Your task to perform on an android device: turn off improve location accuracy Image 0: 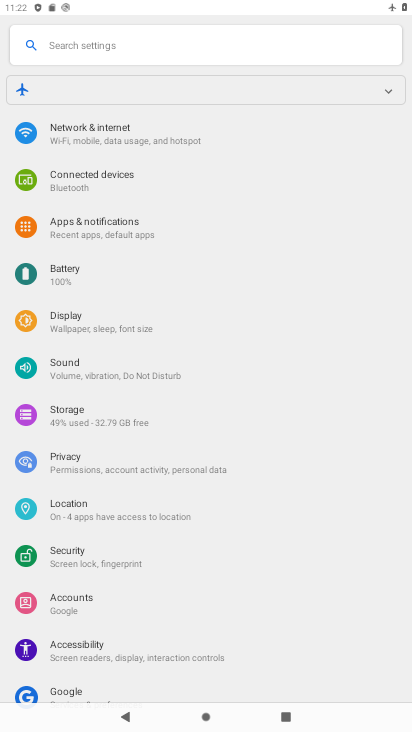
Step 0: press home button
Your task to perform on an android device: turn off improve location accuracy Image 1: 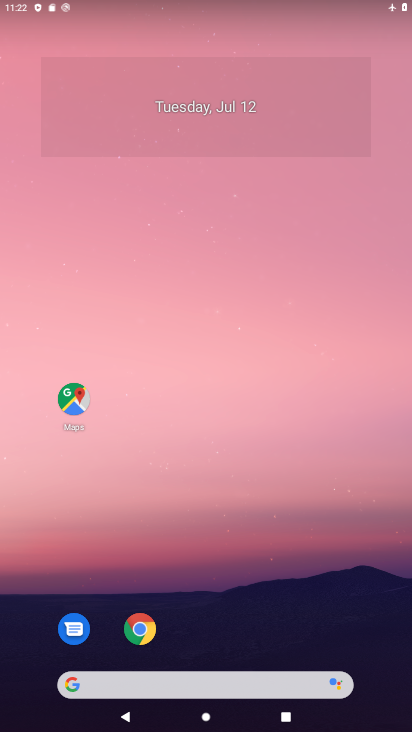
Step 1: drag from (193, 657) to (283, 27)
Your task to perform on an android device: turn off improve location accuracy Image 2: 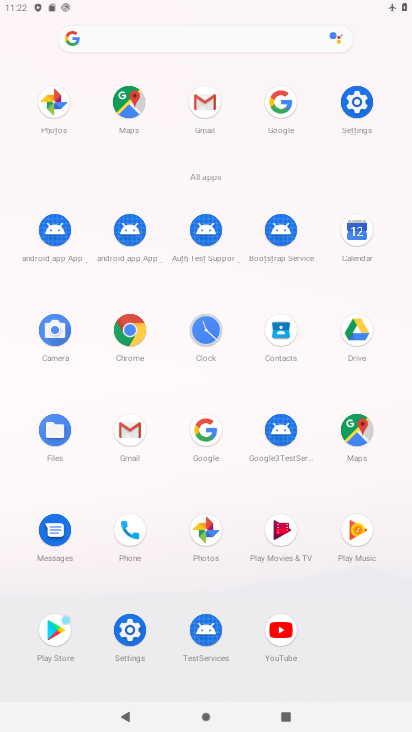
Step 2: click (359, 102)
Your task to perform on an android device: turn off improve location accuracy Image 3: 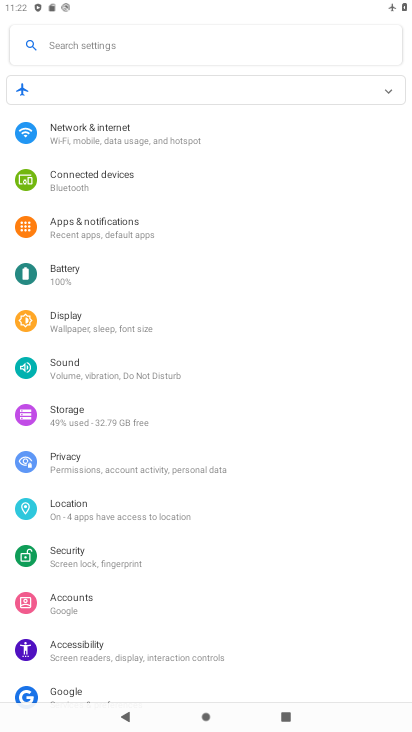
Step 3: drag from (111, 594) to (89, 362)
Your task to perform on an android device: turn off improve location accuracy Image 4: 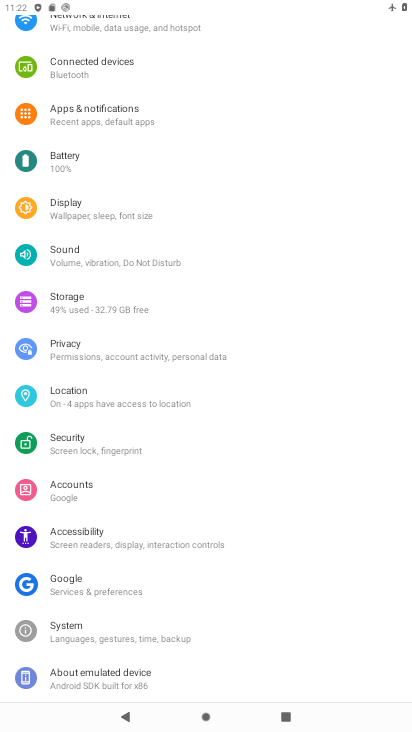
Step 4: click (81, 385)
Your task to perform on an android device: turn off improve location accuracy Image 5: 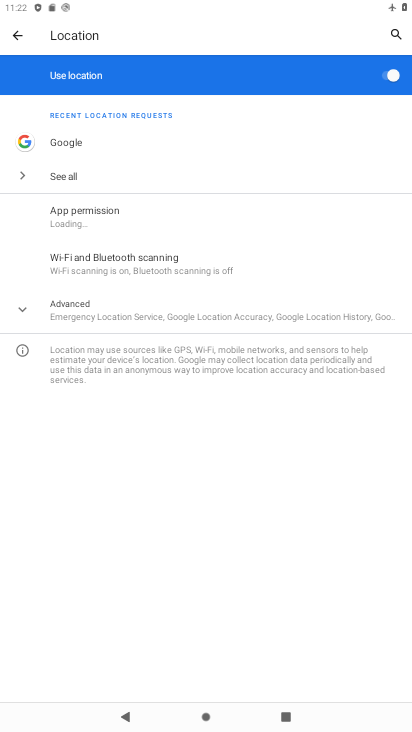
Step 5: click (93, 312)
Your task to perform on an android device: turn off improve location accuracy Image 6: 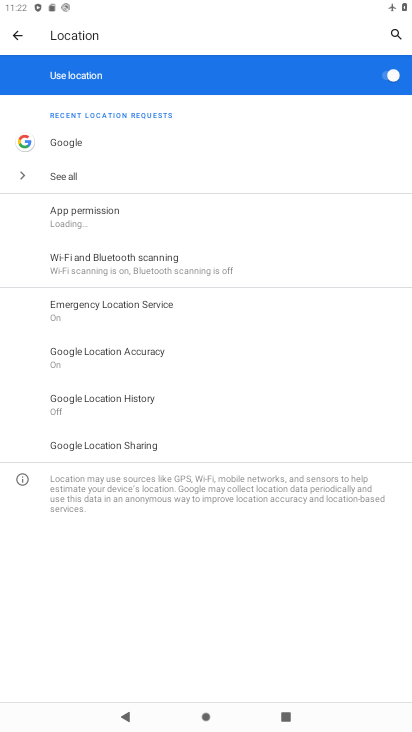
Step 6: click (96, 347)
Your task to perform on an android device: turn off improve location accuracy Image 7: 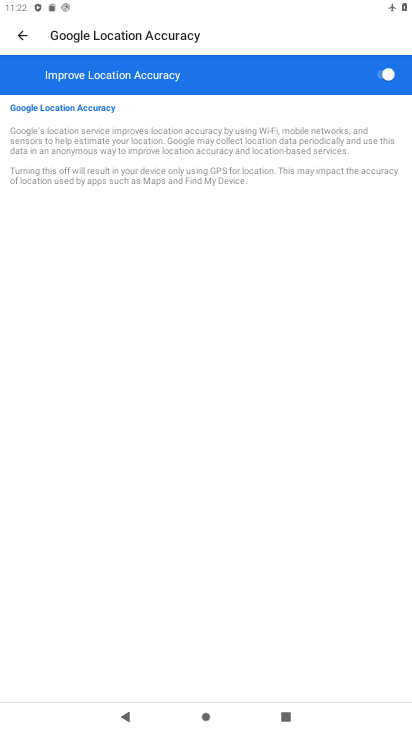
Step 7: click (378, 75)
Your task to perform on an android device: turn off improve location accuracy Image 8: 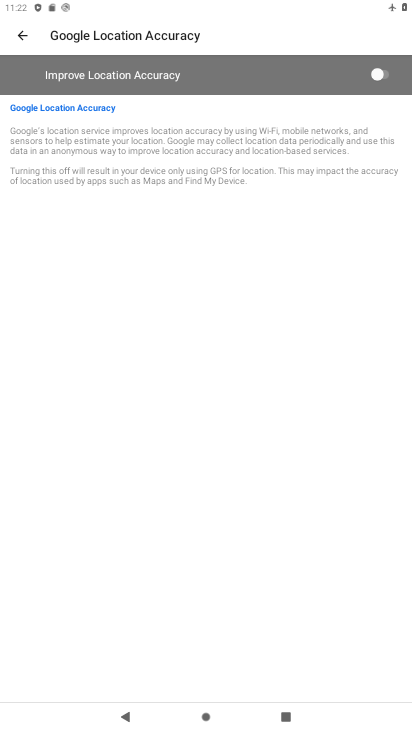
Step 8: task complete